Your task to perform on an android device: find snoozed emails in the gmail app Image 0: 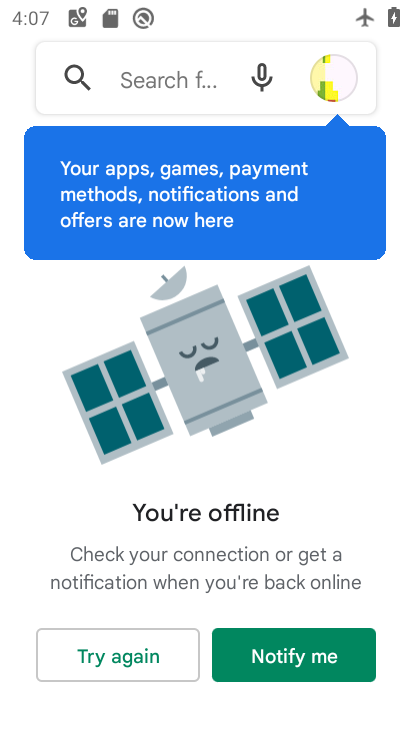
Step 0: press home button
Your task to perform on an android device: find snoozed emails in the gmail app Image 1: 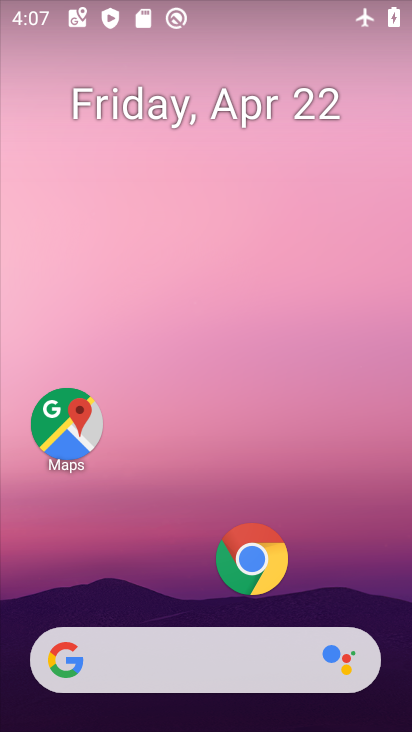
Step 1: drag from (184, 562) to (309, 5)
Your task to perform on an android device: find snoozed emails in the gmail app Image 2: 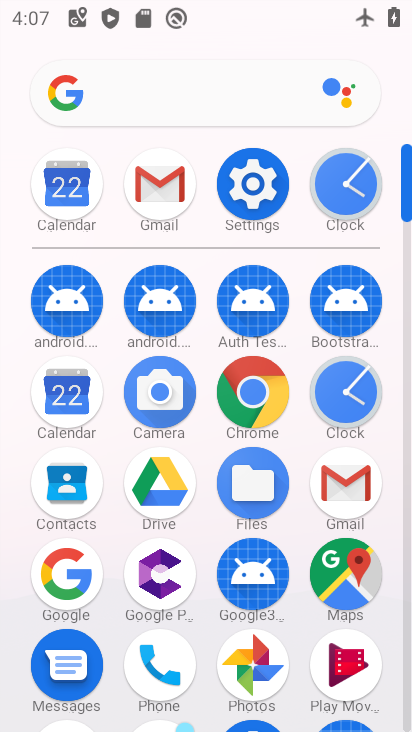
Step 2: click (163, 178)
Your task to perform on an android device: find snoozed emails in the gmail app Image 3: 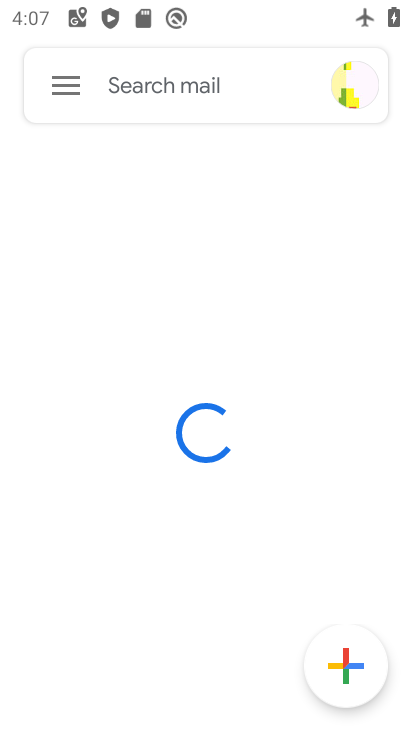
Step 3: click (76, 94)
Your task to perform on an android device: find snoozed emails in the gmail app Image 4: 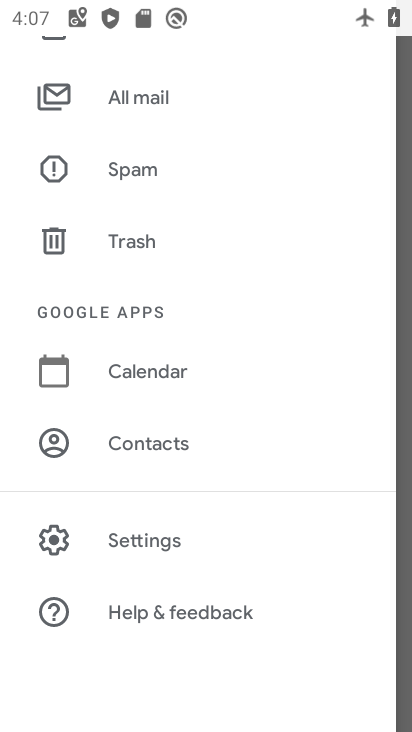
Step 4: drag from (176, 339) to (174, 608)
Your task to perform on an android device: find snoozed emails in the gmail app Image 5: 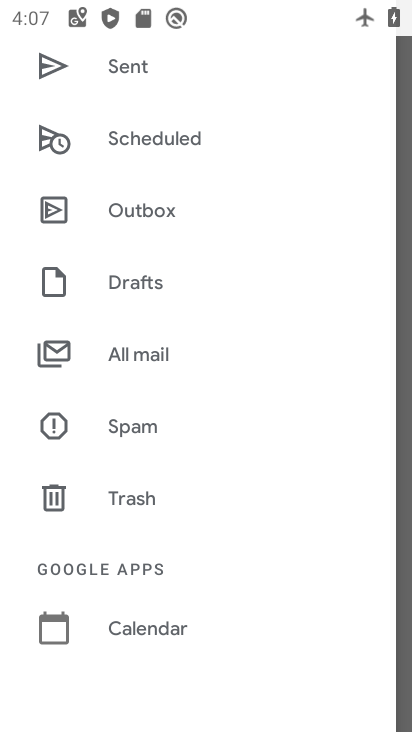
Step 5: drag from (161, 245) to (176, 575)
Your task to perform on an android device: find snoozed emails in the gmail app Image 6: 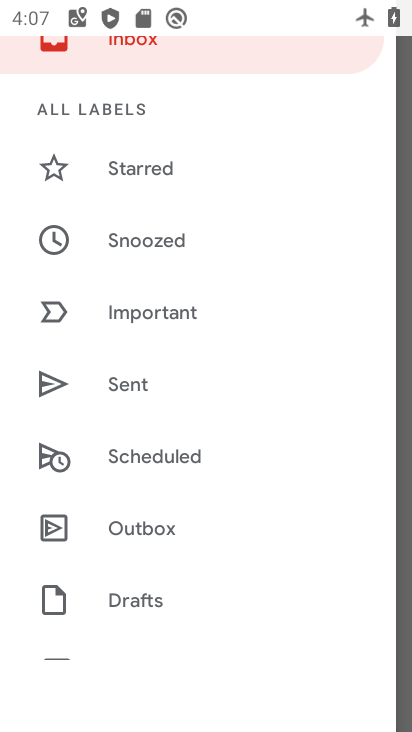
Step 6: click (158, 250)
Your task to perform on an android device: find snoozed emails in the gmail app Image 7: 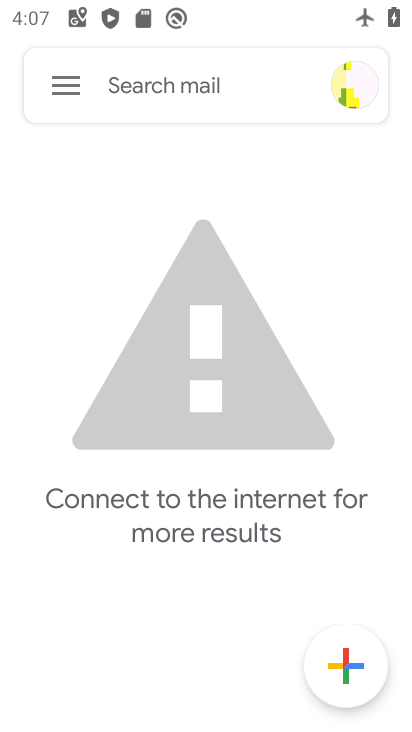
Step 7: task complete